Your task to perform on an android device: Go to privacy settings Image 0: 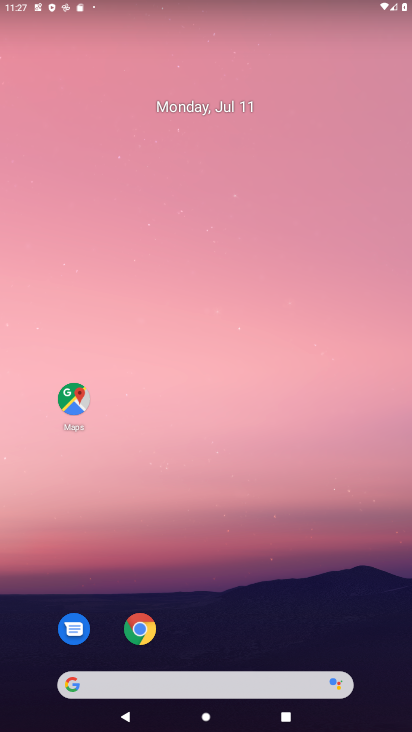
Step 0: drag from (260, 627) to (181, 2)
Your task to perform on an android device: Go to privacy settings Image 1: 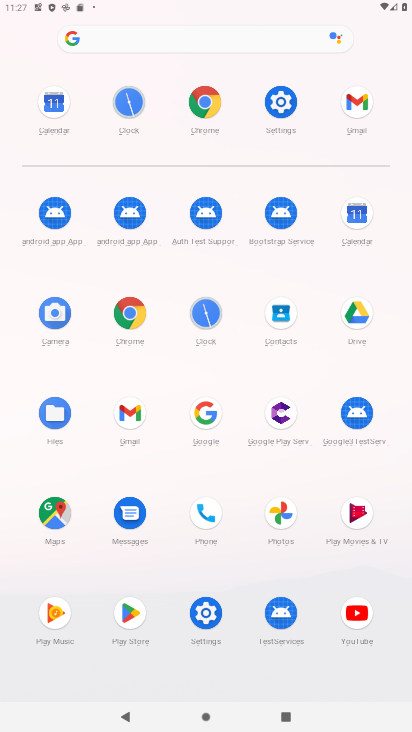
Step 1: click (273, 94)
Your task to perform on an android device: Go to privacy settings Image 2: 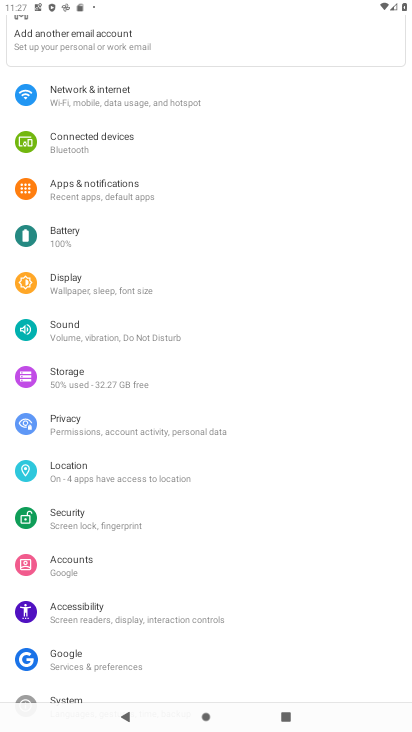
Step 2: click (147, 248)
Your task to perform on an android device: Go to privacy settings Image 3: 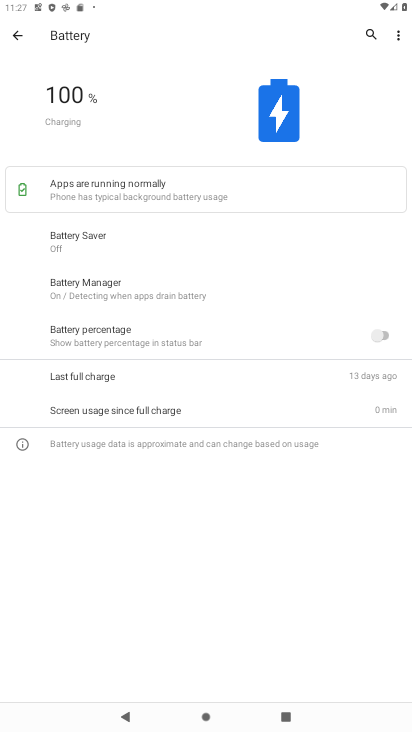
Step 3: click (19, 35)
Your task to perform on an android device: Go to privacy settings Image 4: 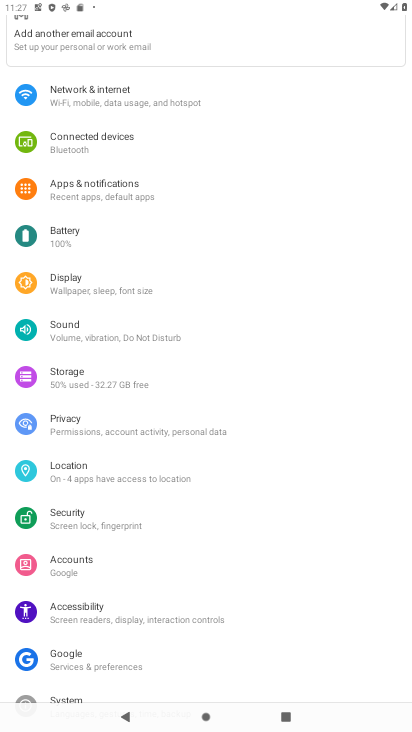
Step 4: drag from (123, 656) to (126, 465)
Your task to perform on an android device: Go to privacy settings Image 5: 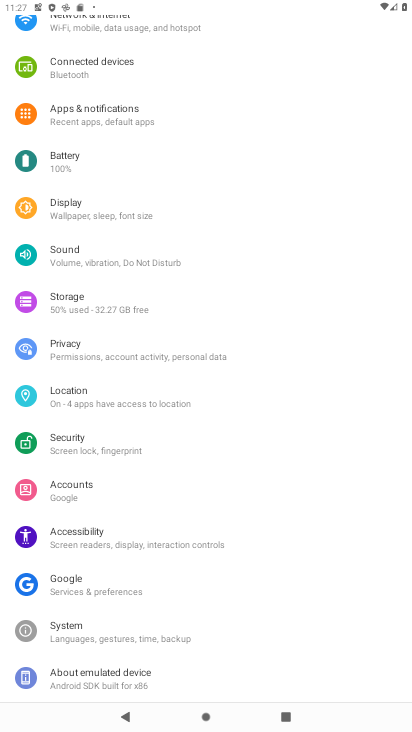
Step 5: click (102, 367)
Your task to perform on an android device: Go to privacy settings Image 6: 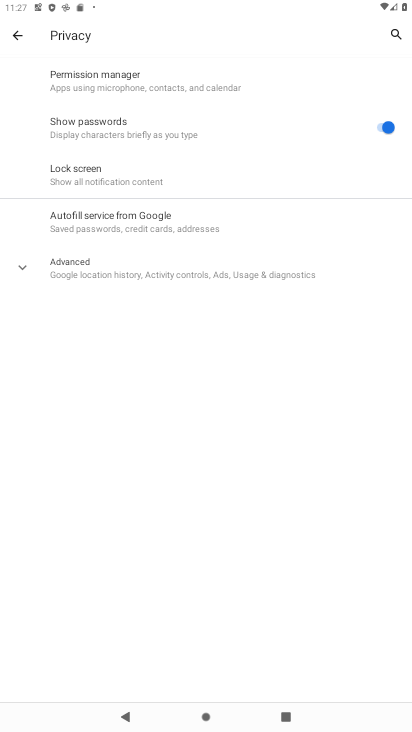
Step 6: task complete